Your task to perform on an android device: Open accessibility settings Image 0: 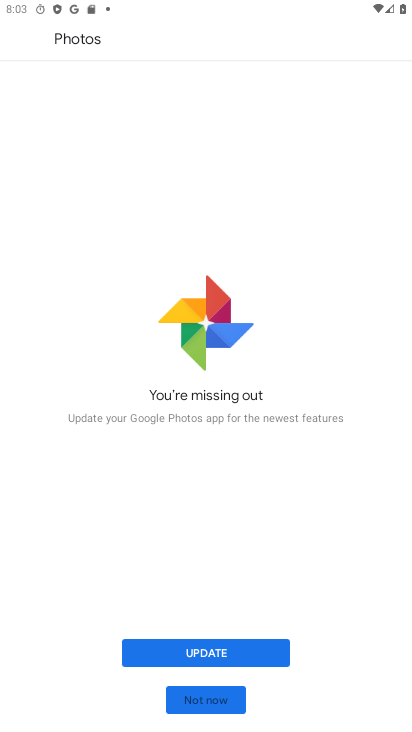
Step 0: press home button
Your task to perform on an android device: Open accessibility settings Image 1: 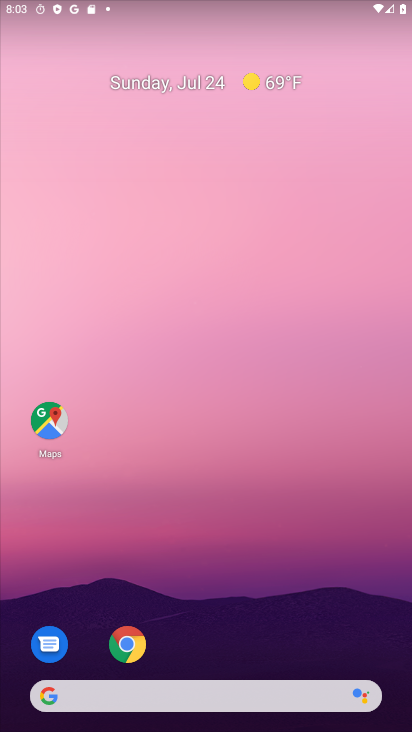
Step 1: drag from (144, 637) to (171, 271)
Your task to perform on an android device: Open accessibility settings Image 2: 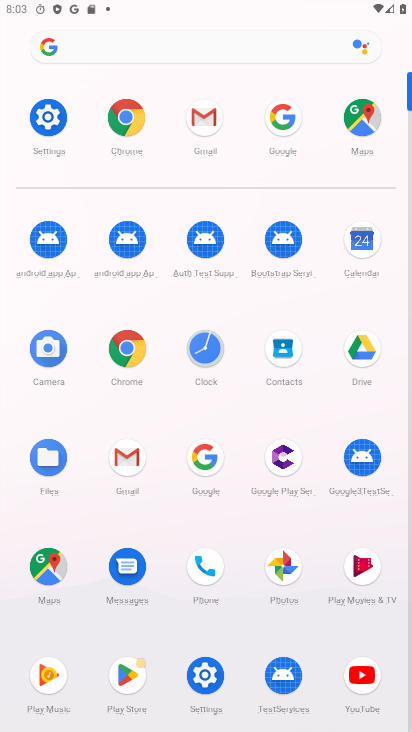
Step 2: click (210, 668)
Your task to perform on an android device: Open accessibility settings Image 3: 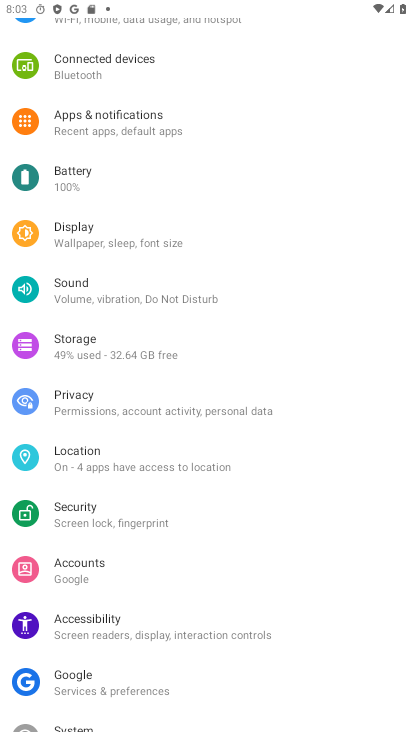
Step 3: click (75, 629)
Your task to perform on an android device: Open accessibility settings Image 4: 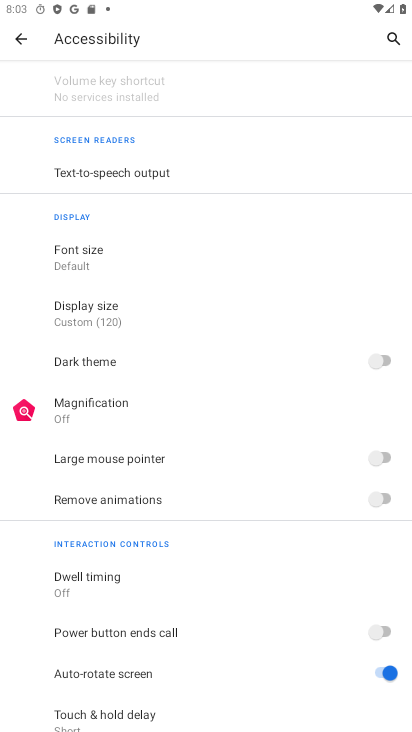
Step 4: task complete